Your task to perform on an android device: toggle show notifications on the lock screen Image 0: 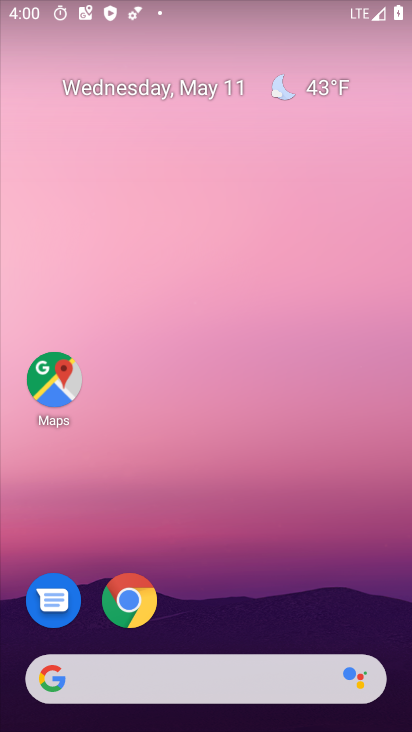
Step 0: drag from (320, 621) to (317, 28)
Your task to perform on an android device: toggle show notifications on the lock screen Image 1: 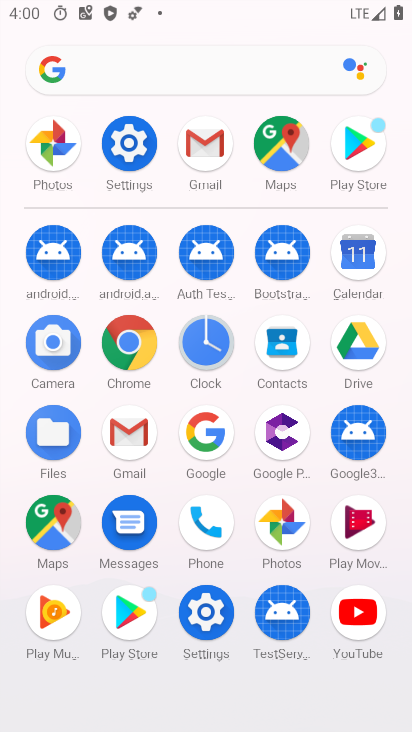
Step 1: click (133, 140)
Your task to perform on an android device: toggle show notifications on the lock screen Image 2: 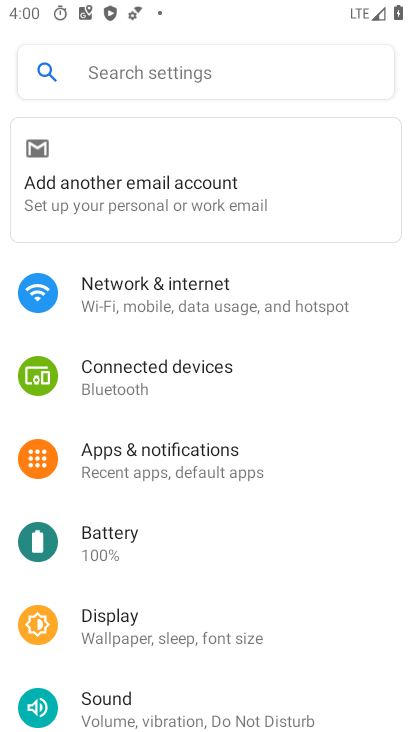
Step 2: click (173, 461)
Your task to perform on an android device: toggle show notifications on the lock screen Image 3: 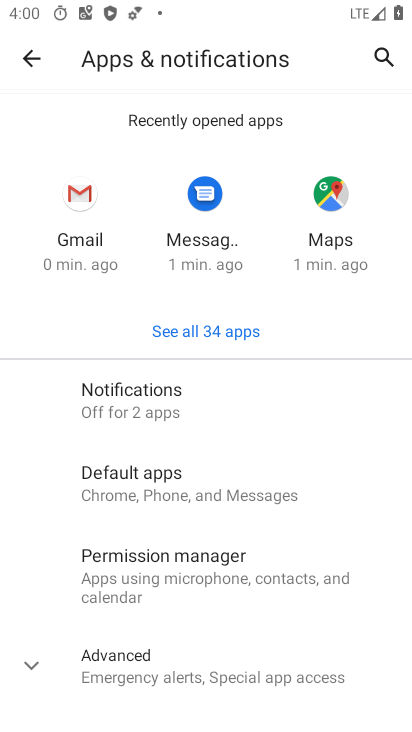
Step 3: click (120, 411)
Your task to perform on an android device: toggle show notifications on the lock screen Image 4: 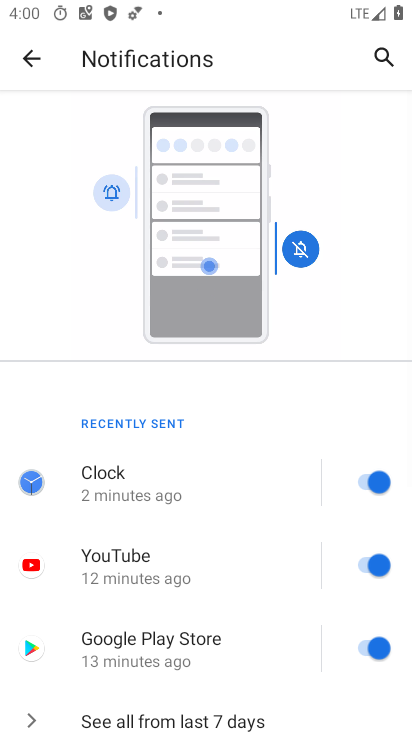
Step 4: drag from (211, 639) to (212, 313)
Your task to perform on an android device: toggle show notifications on the lock screen Image 5: 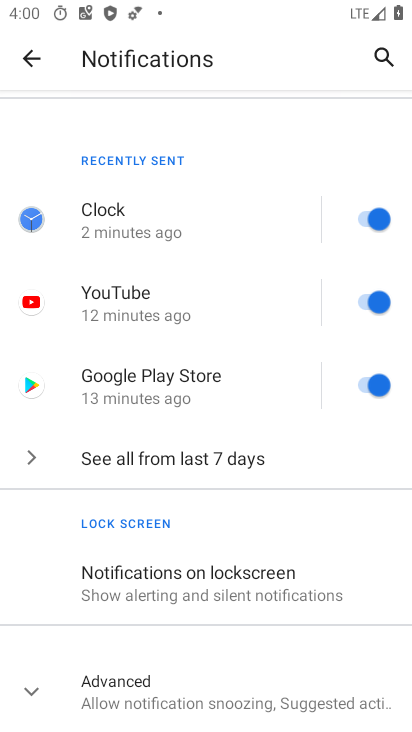
Step 5: click (158, 587)
Your task to perform on an android device: toggle show notifications on the lock screen Image 6: 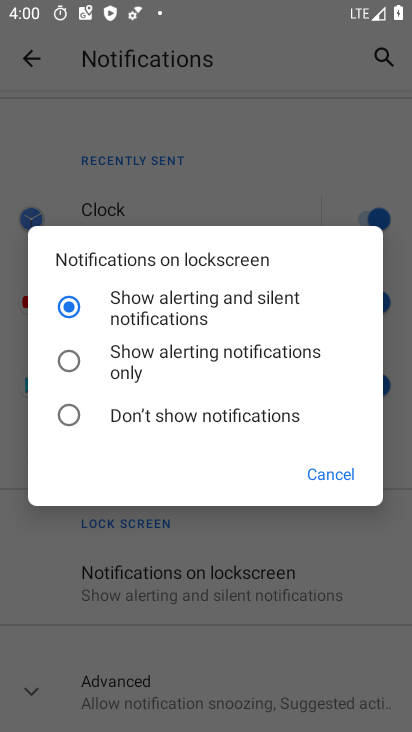
Step 6: click (73, 413)
Your task to perform on an android device: toggle show notifications on the lock screen Image 7: 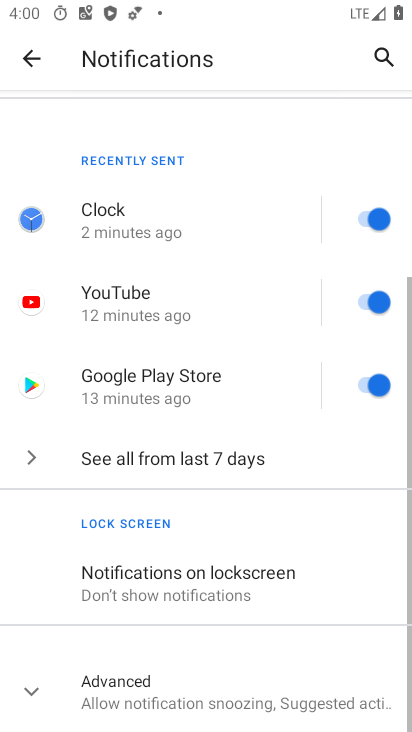
Step 7: task complete